Your task to perform on an android device: Go to privacy settings Image 0: 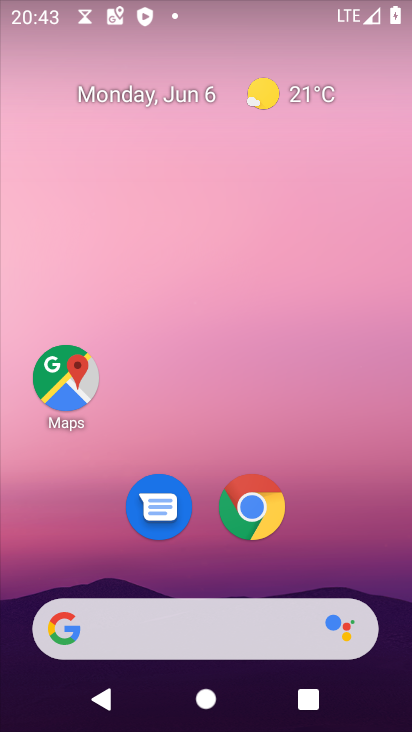
Step 0: drag from (210, 597) to (188, 56)
Your task to perform on an android device: Go to privacy settings Image 1: 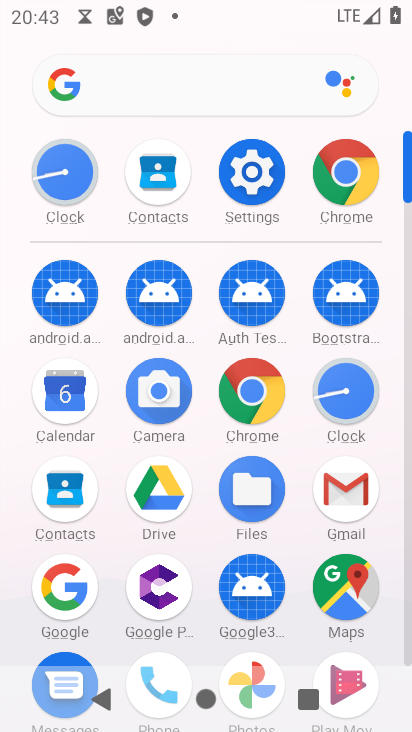
Step 1: click (250, 178)
Your task to perform on an android device: Go to privacy settings Image 2: 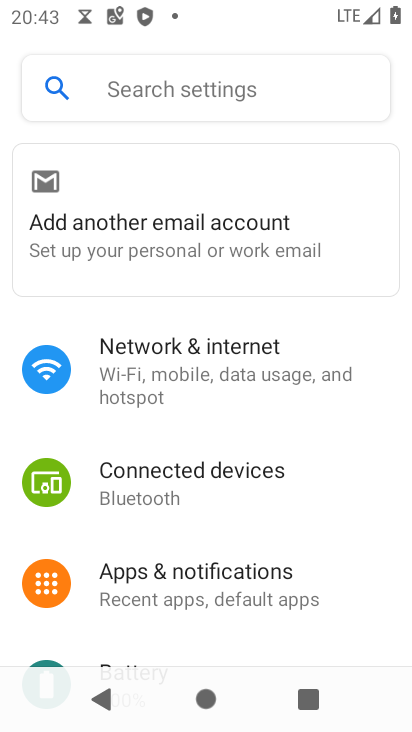
Step 2: drag from (221, 558) to (203, 358)
Your task to perform on an android device: Go to privacy settings Image 3: 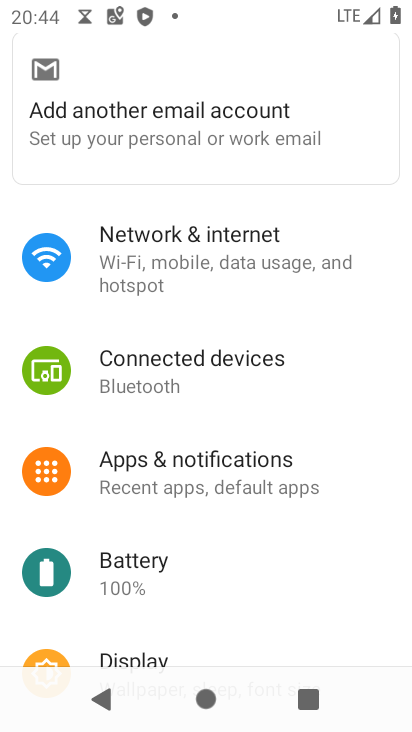
Step 3: drag from (161, 640) to (159, 297)
Your task to perform on an android device: Go to privacy settings Image 4: 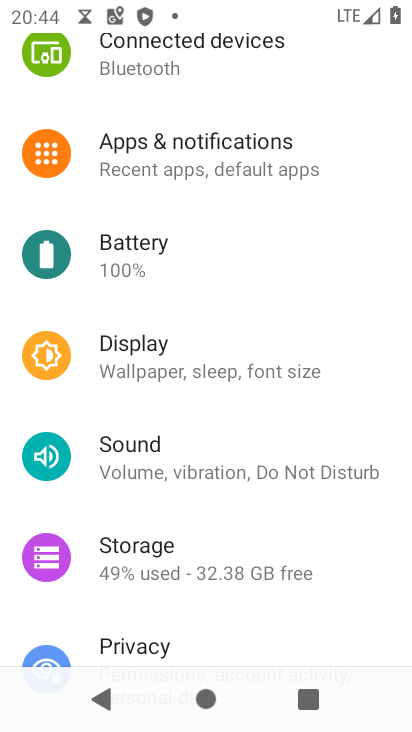
Step 4: click (156, 659)
Your task to perform on an android device: Go to privacy settings Image 5: 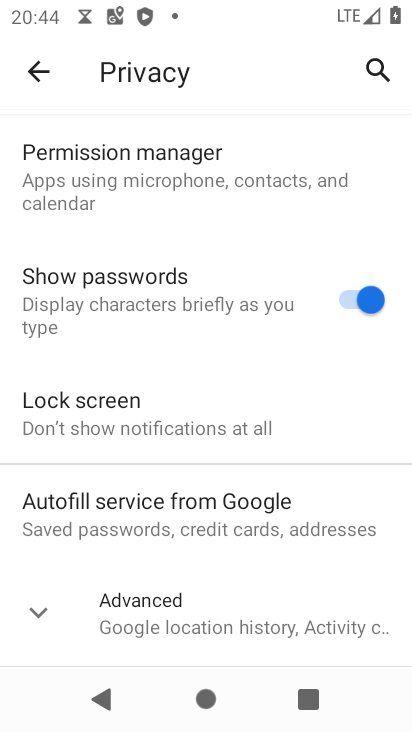
Step 5: task complete